Your task to perform on an android device: Open the calendar and show me this week's events? Image 0: 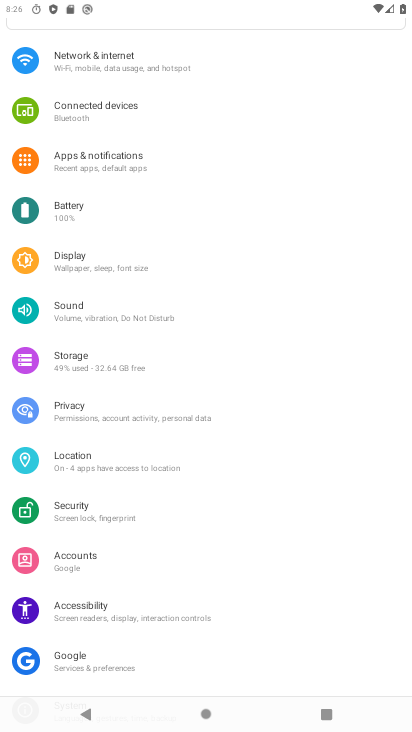
Step 0: press home button
Your task to perform on an android device: Open the calendar and show me this week's events? Image 1: 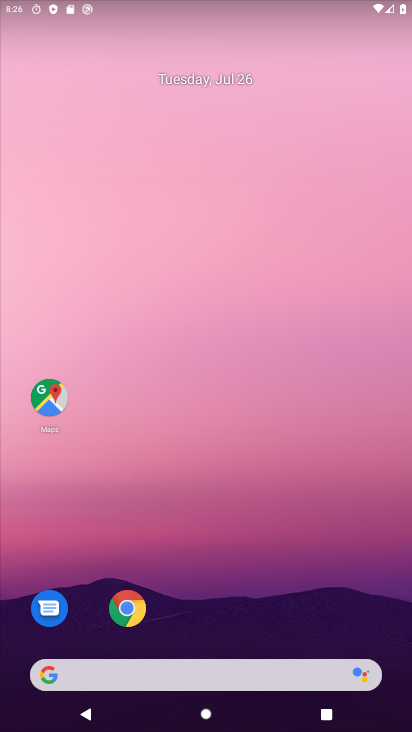
Step 1: drag from (245, 566) to (295, 28)
Your task to perform on an android device: Open the calendar and show me this week's events? Image 2: 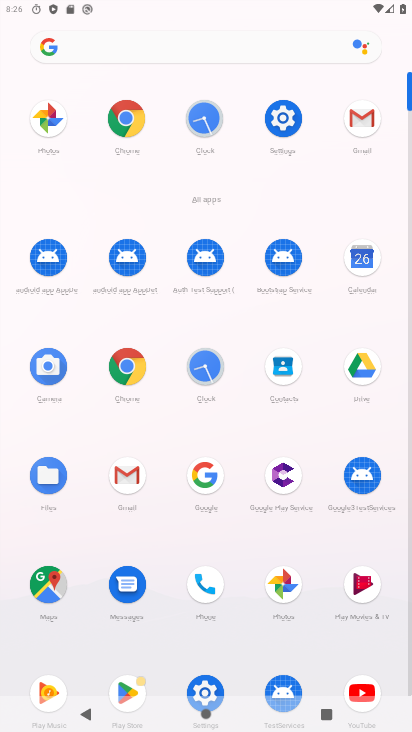
Step 2: click (360, 256)
Your task to perform on an android device: Open the calendar and show me this week's events? Image 3: 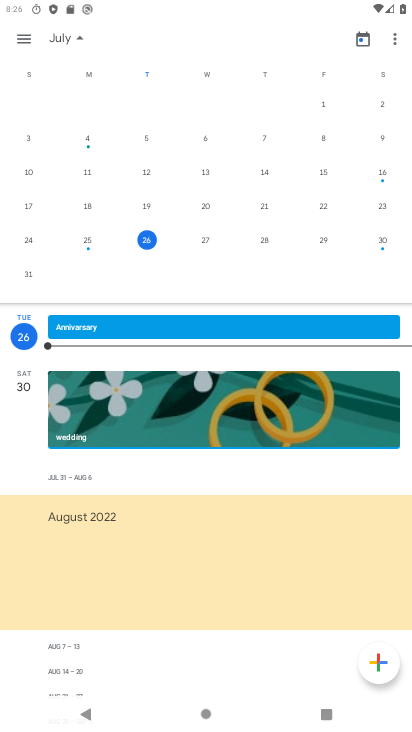
Step 3: click (388, 236)
Your task to perform on an android device: Open the calendar and show me this week's events? Image 4: 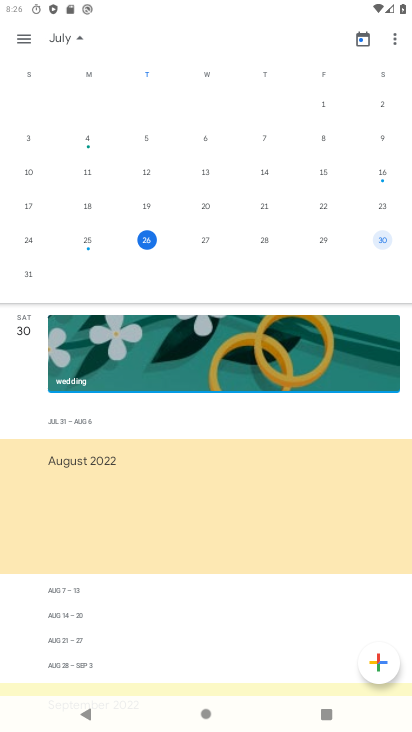
Step 4: task complete